Your task to perform on an android device: turn on translation in the chrome app Image 0: 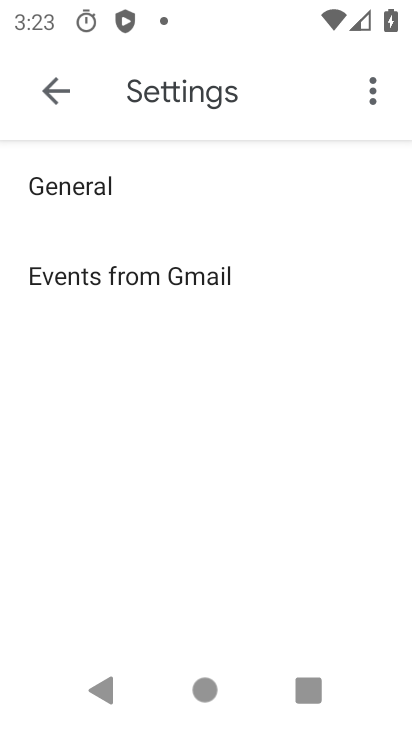
Step 0: press home button
Your task to perform on an android device: turn on translation in the chrome app Image 1: 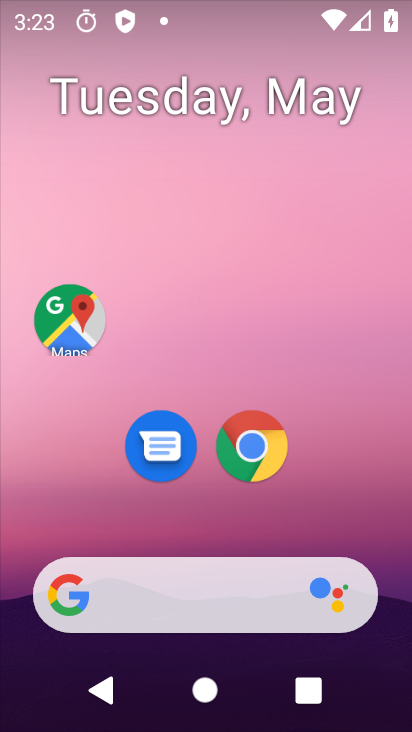
Step 1: click (249, 445)
Your task to perform on an android device: turn on translation in the chrome app Image 2: 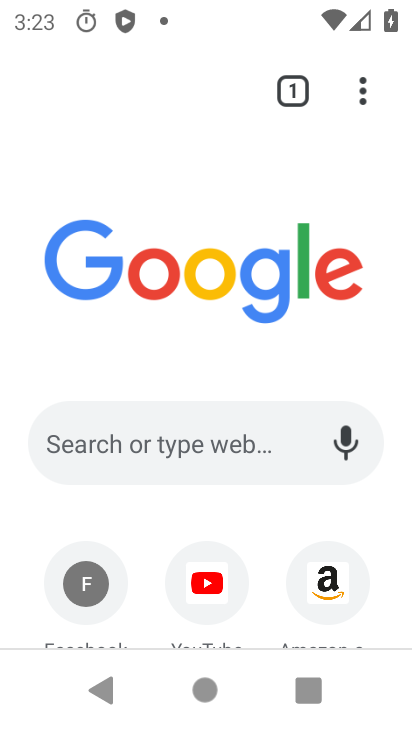
Step 2: click (365, 97)
Your task to perform on an android device: turn on translation in the chrome app Image 3: 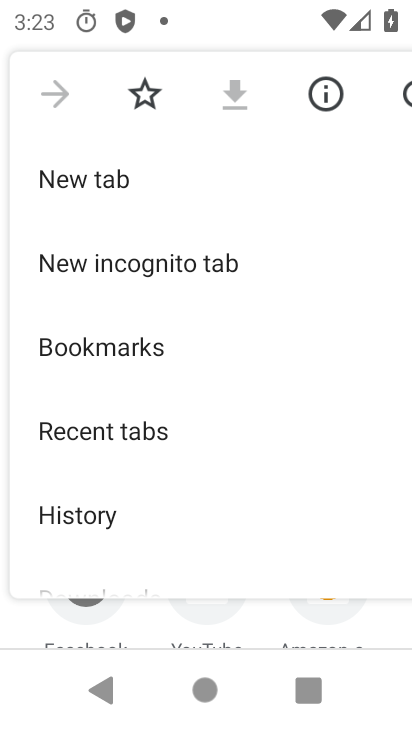
Step 3: drag from (100, 529) to (109, 207)
Your task to perform on an android device: turn on translation in the chrome app Image 4: 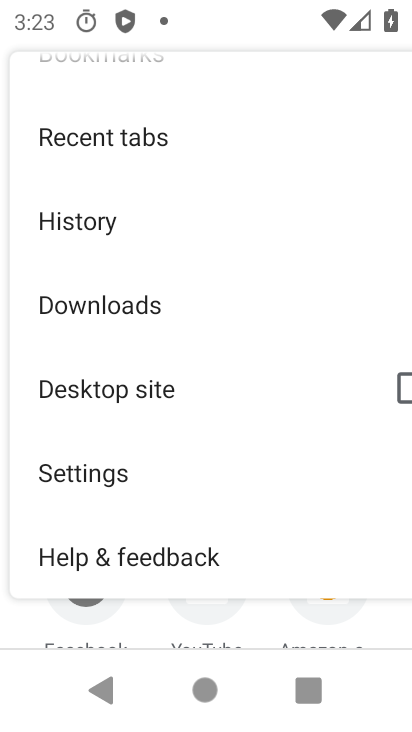
Step 4: click (110, 469)
Your task to perform on an android device: turn on translation in the chrome app Image 5: 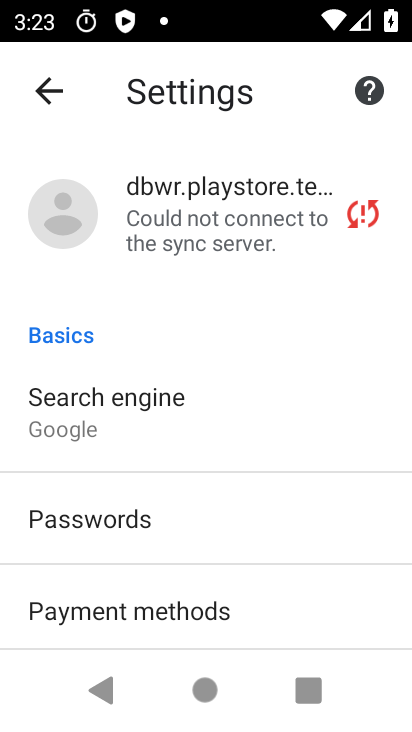
Step 5: drag from (160, 613) to (170, 204)
Your task to perform on an android device: turn on translation in the chrome app Image 6: 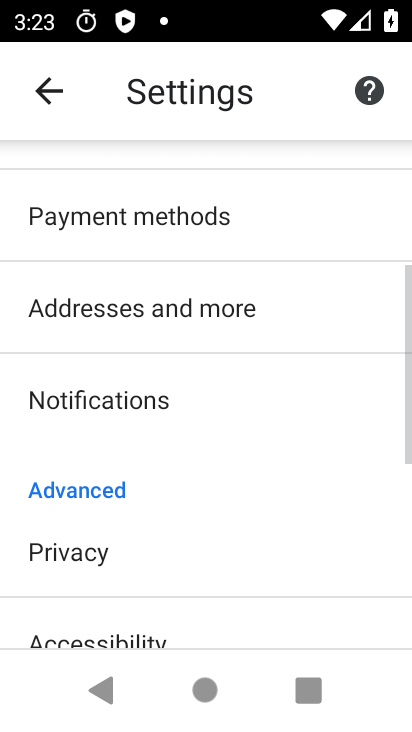
Step 6: drag from (212, 601) to (221, 235)
Your task to perform on an android device: turn on translation in the chrome app Image 7: 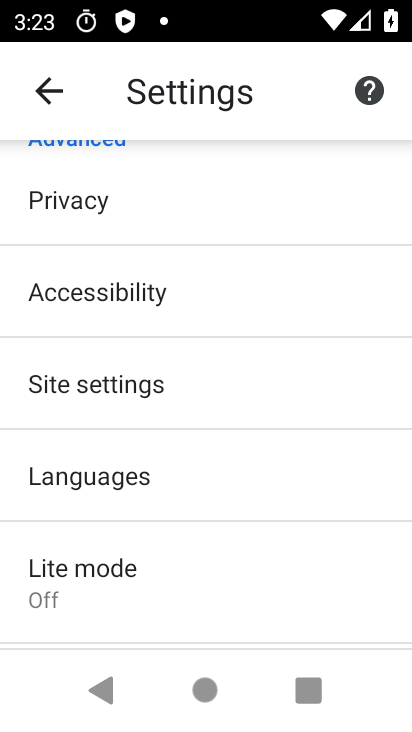
Step 7: drag from (149, 609) to (166, 364)
Your task to perform on an android device: turn on translation in the chrome app Image 8: 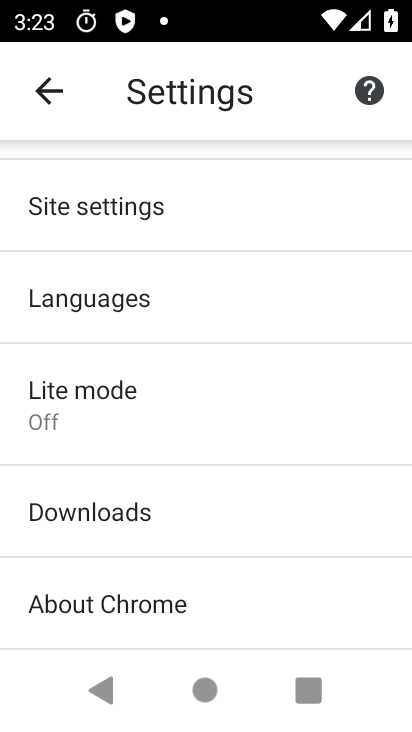
Step 8: click (105, 301)
Your task to perform on an android device: turn on translation in the chrome app Image 9: 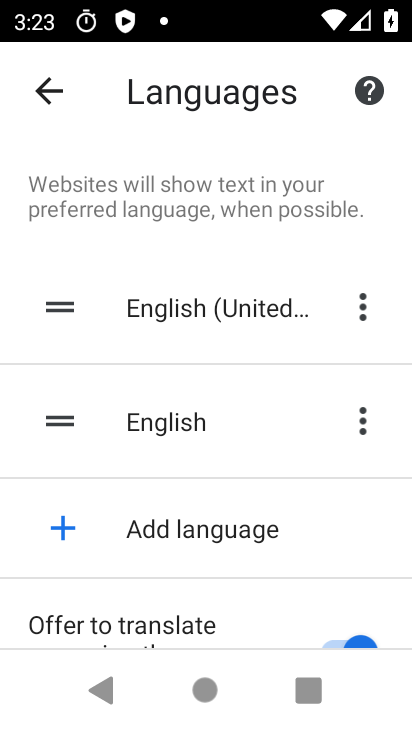
Step 9: task complete